Your task to perform on an android device: toggle location history Image 0: 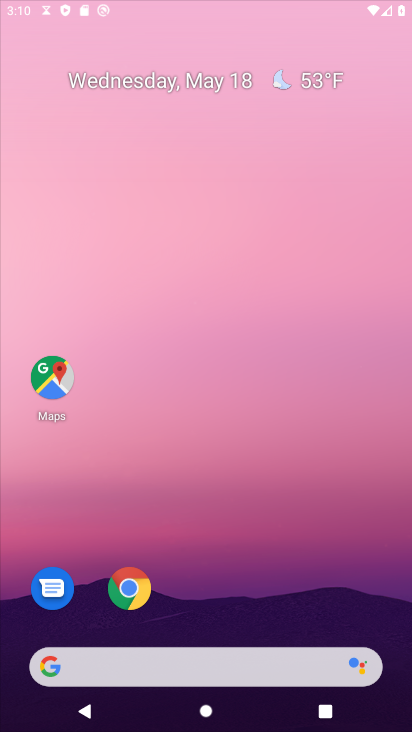
Step 0: press home button
Your task to perform on an android device: toggle location history Image 1: 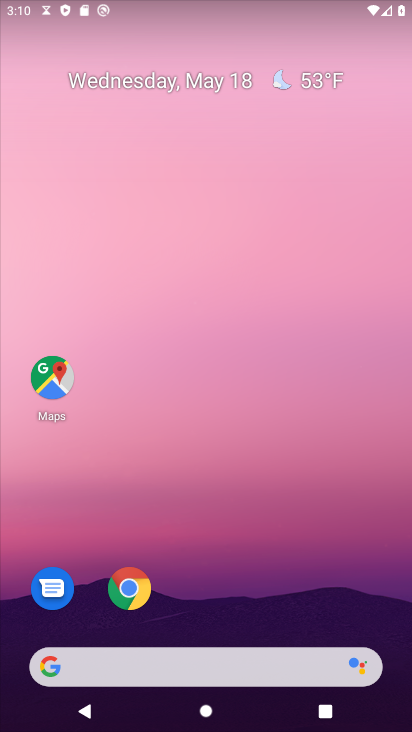
Step 1: click (68, 398)
Your task to perform on an android device: toggle location history Image 2: 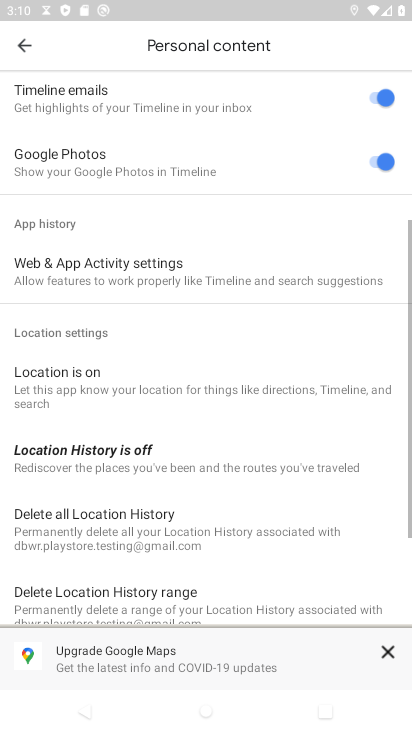
Step 2: click (152, 463)
Your task to perform on an android device: toggle location history Image 3: 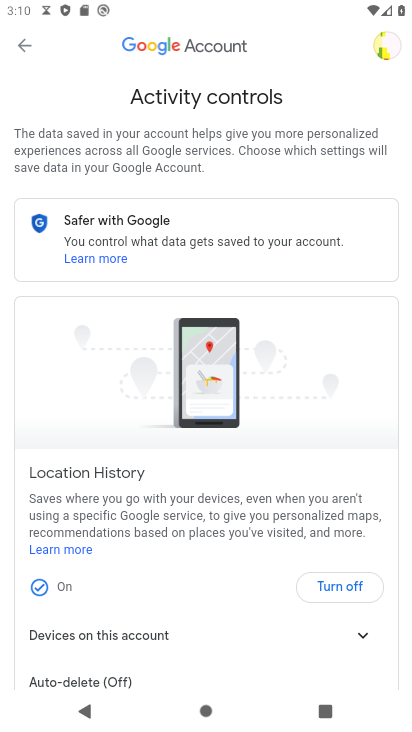
Step 3: click (339, 585)
Your task to perform on an android device: toggle location history Image 4: 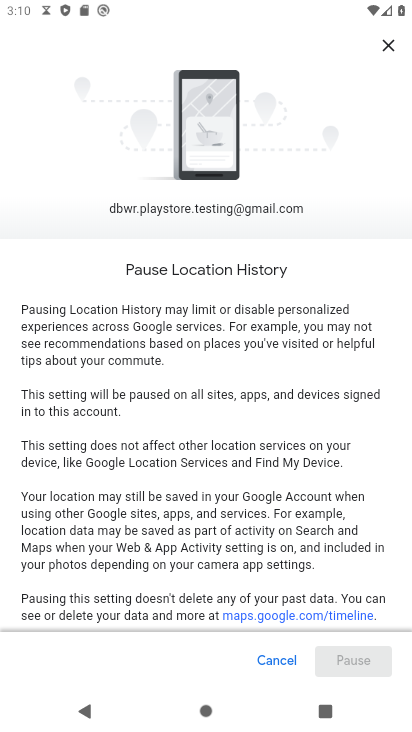
Step 4: drag from (343, 603) to (326, 120)
Your task to perform on an android device: toggle location history Image 5: 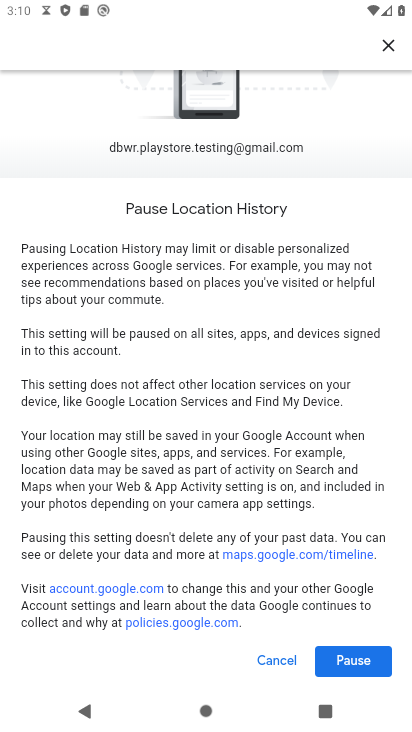
Step 5: click (376, 668)
Your task to perform on an android device: toggle location history Image 6: 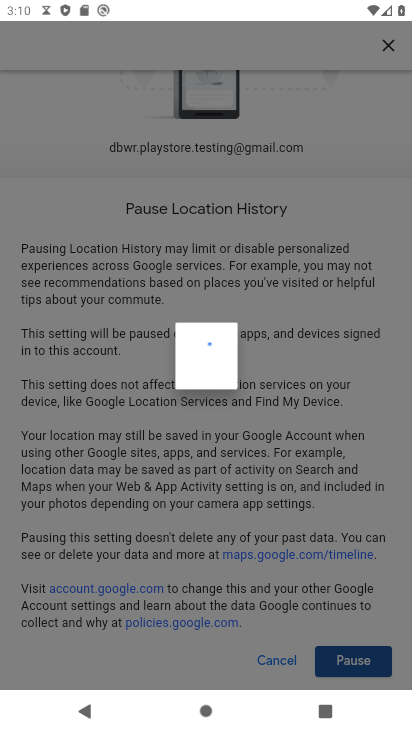
Step 6: click (376, 668)
Your task to perform on an android device: toggle location history Image 7: 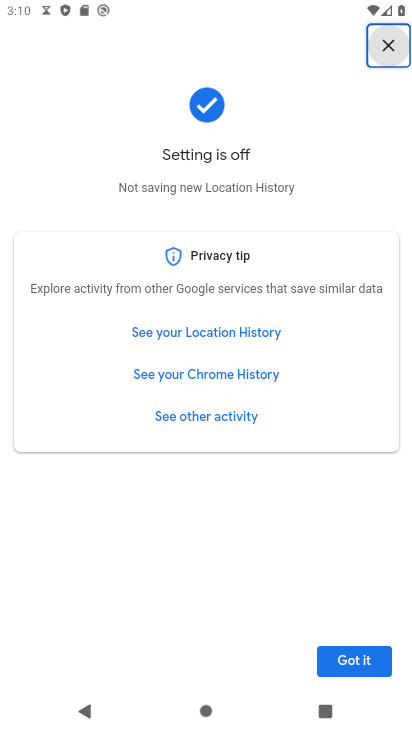
Step 7: click (364, 670)
Your task to perform on an android device: toggle location history Image 8: 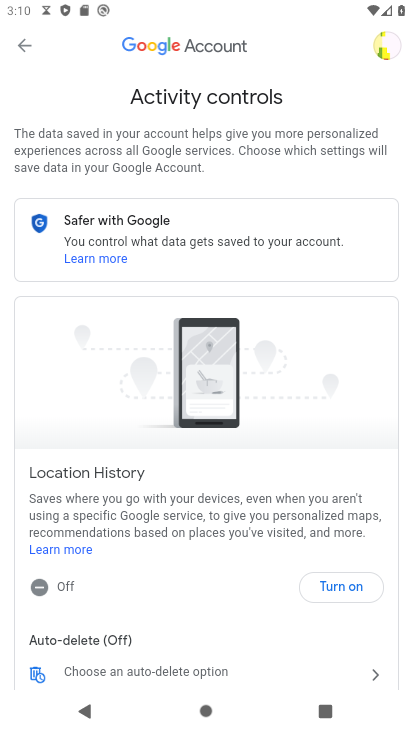
Step 8: task complete